Your task to perform on an android device: check battery use Image 0: 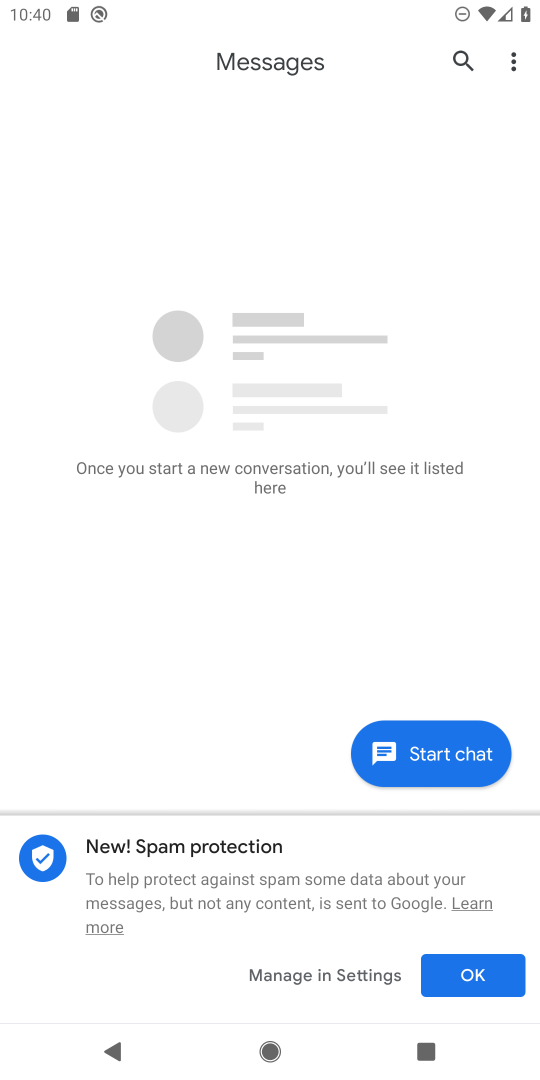
Step 0: press back button
Your task to perform on an android device: check battery use Image 1: 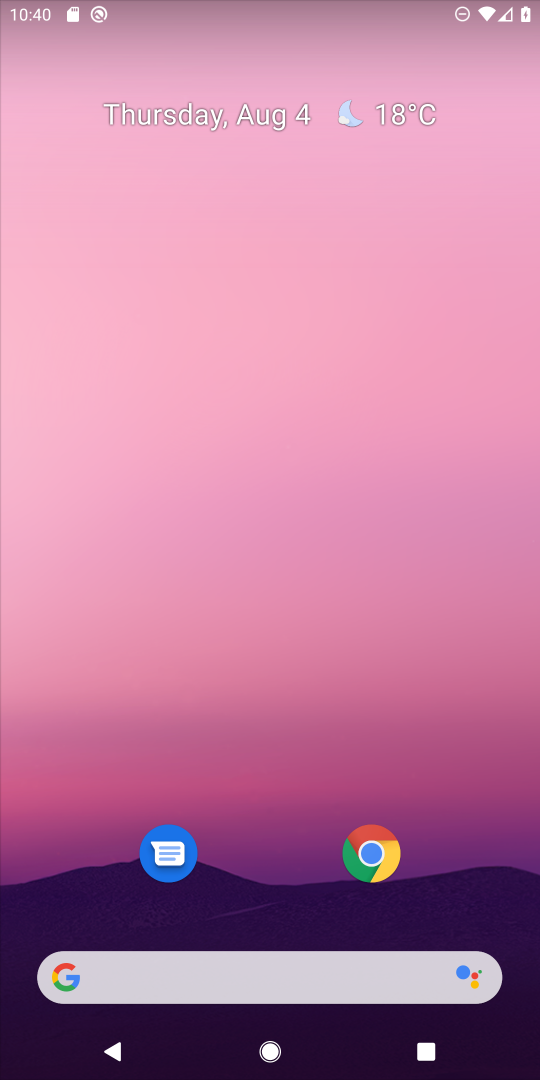
Step 1: drag from (275, 896) to (201, 33)
Your task to perform on an android device: check battery use Image 2: 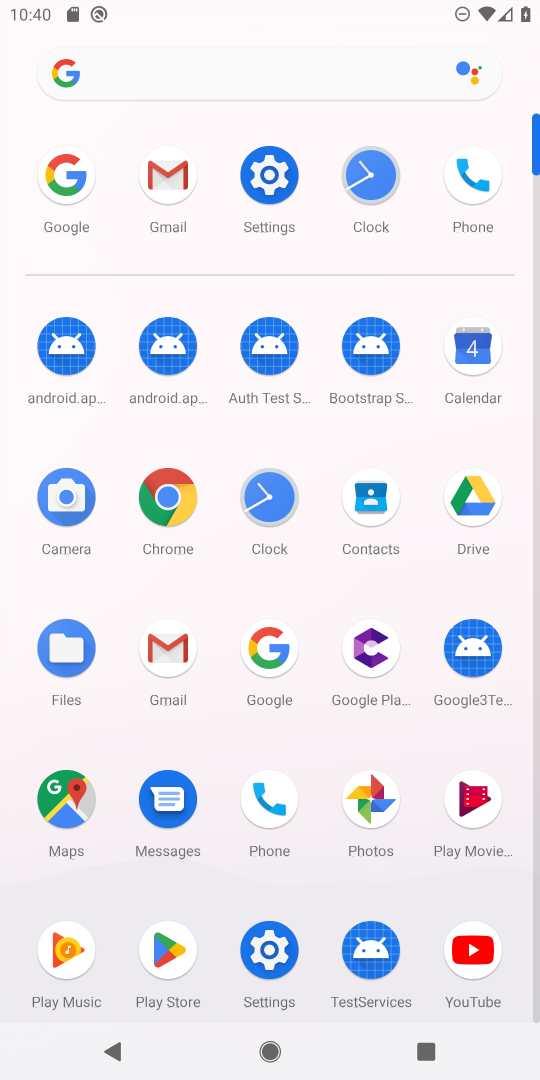
Step 2: click (252, 166)
Your task to perform on an android device: check battery use Image 3: 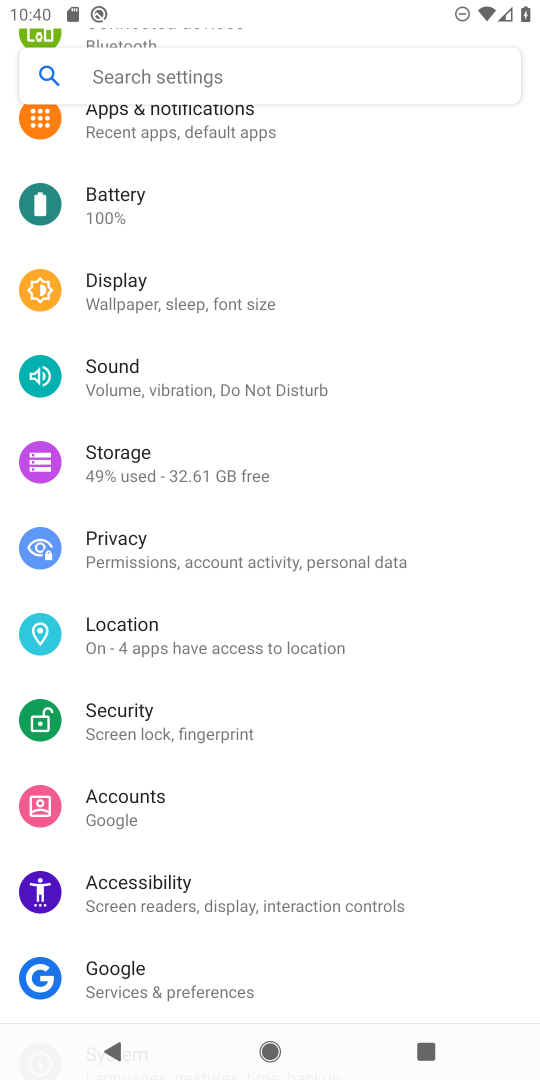
Step 3: click (109, 223)
Your task to perform on an android device: check battery use Image 4: 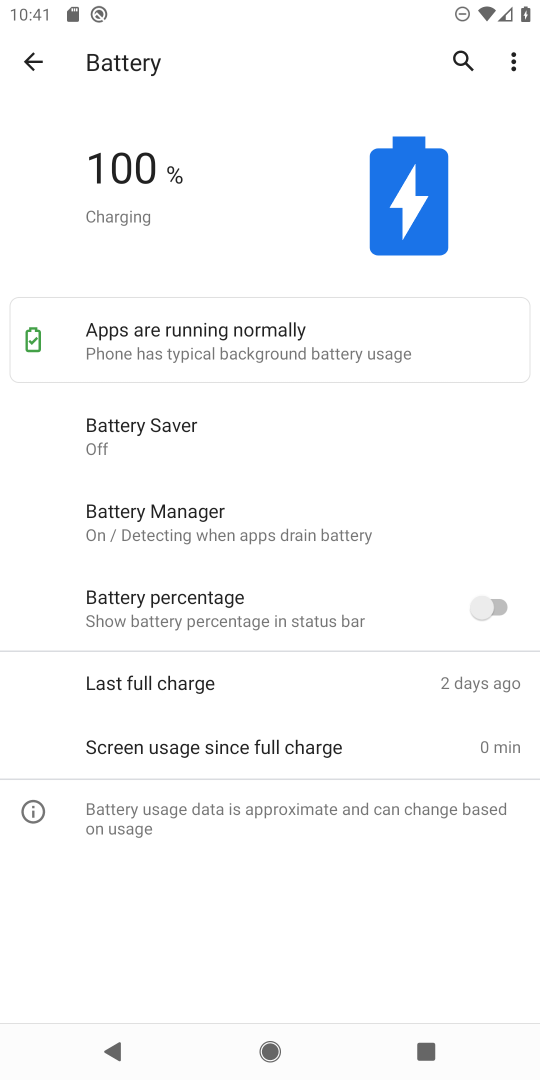
Step 4: task complete